Your task to perform on an android device: turn on notifications settings in the gmail app Image 0: 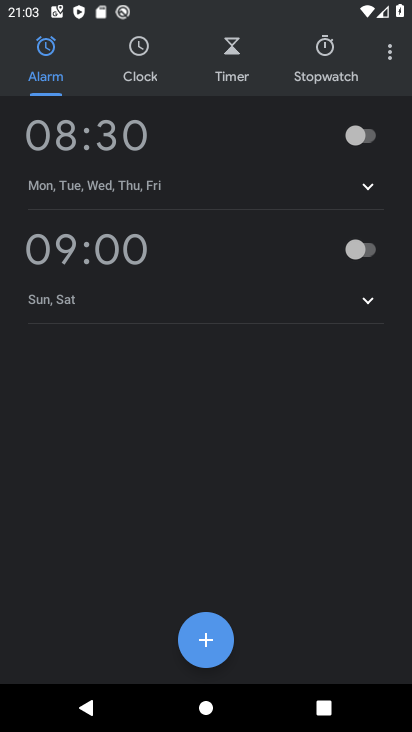
Step 0: press home button
Your task to perform on an android device: turn on notifications settings in the gmail app Image 1: 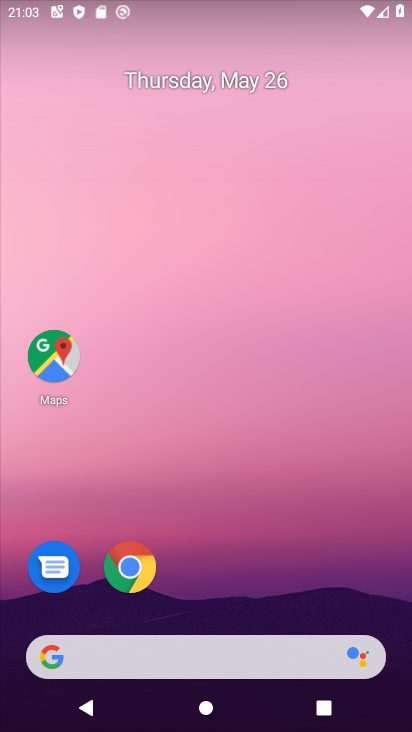
Step 1: drag from (277, 543) to (293, 147)
Your task to perform on an android device: turn on notifications settings in the gmail app Image 2: 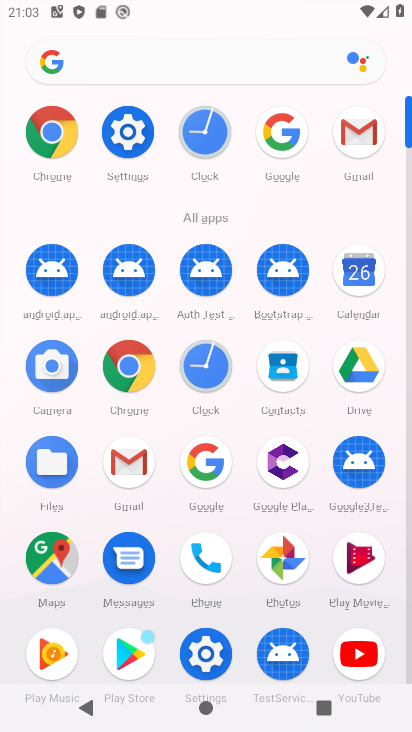
Step 2: click (354, 125)
Your task to perform on an android device: turn on notifications settings in the gmail app Image 3: 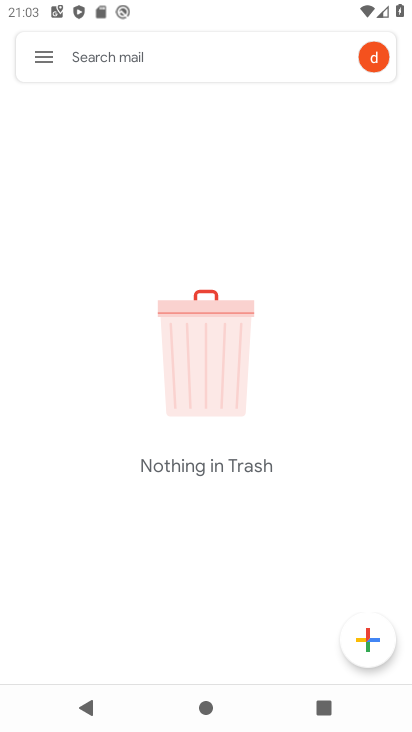
Step 3: click (44, 50)
Your task to perform on an android device: turn on notifications settings in the gmail app Image 4: 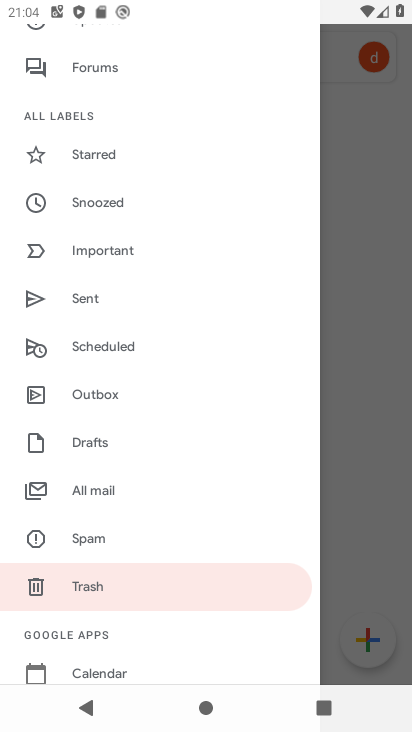
Step 4: drag from (110, 644) to (151, 312)
Your task to perform on an android device: turn on notifications settings in the gmail app Image 5: 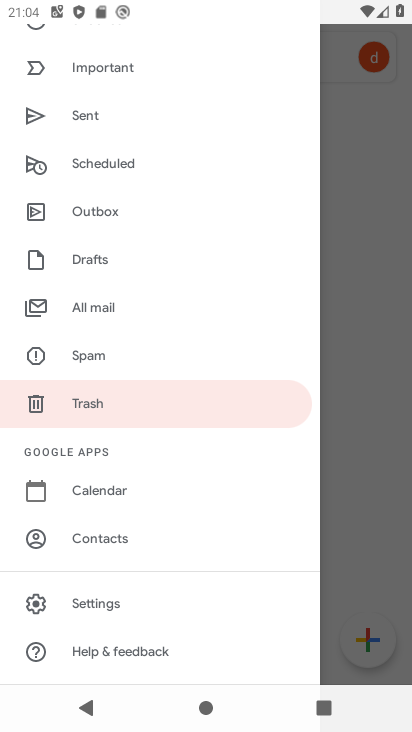
Step 5: click (113, 597)
Your task to perform on an android device: turn on notifications settings in the gmail app Image 6: 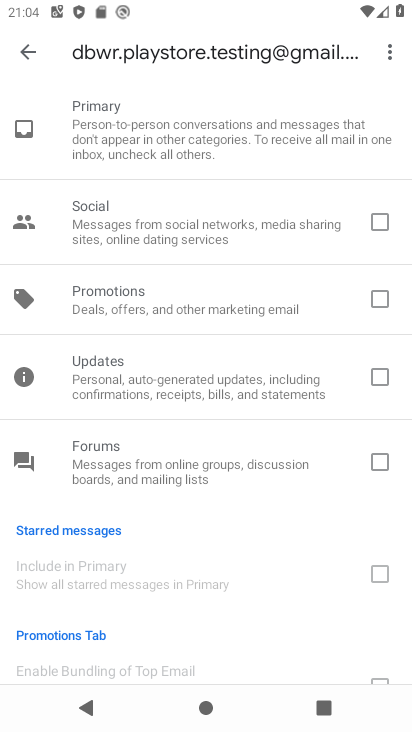
Step 6: click (105, 432)
Your task to perform on an android device: turn on notifications settings in the gmail app Image 7: 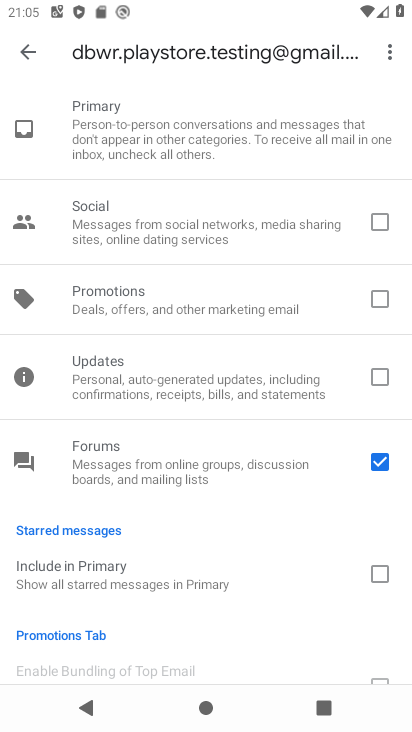
Step 7: click (25, 50)
Your task to perform on an android device: turn on notifications settings in the gmail app Image 8: 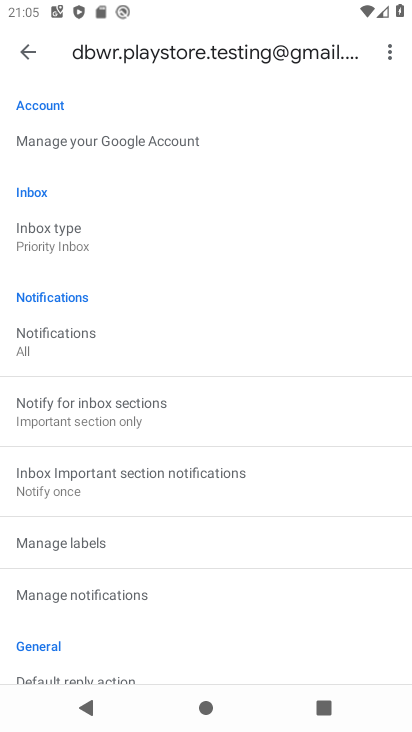
Step 8: click (96, 593)
Your task to perform on an android device: turn on notifications settings in the gmail app Image 9: 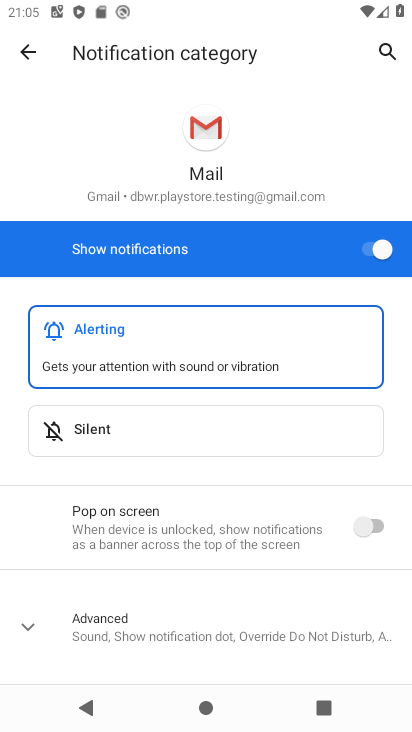
Step 9: task complete